Your task to perform on an android device: Open calendar and show me the second week of next month Image 0: 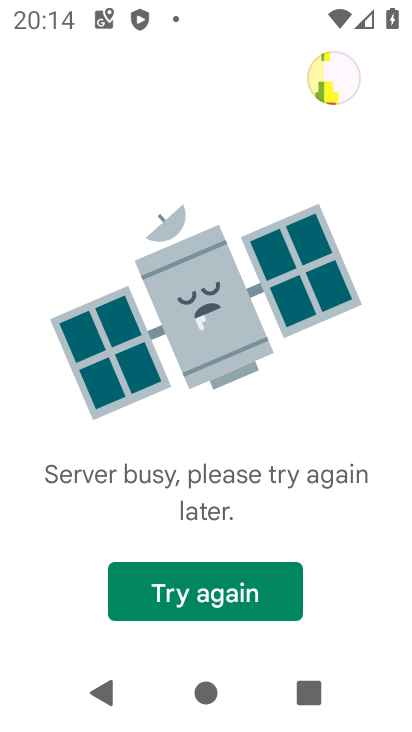
Step 0: click (264, 432)
Your task to perform on an android device: Open calendar and show me the second week of next month Image 1: 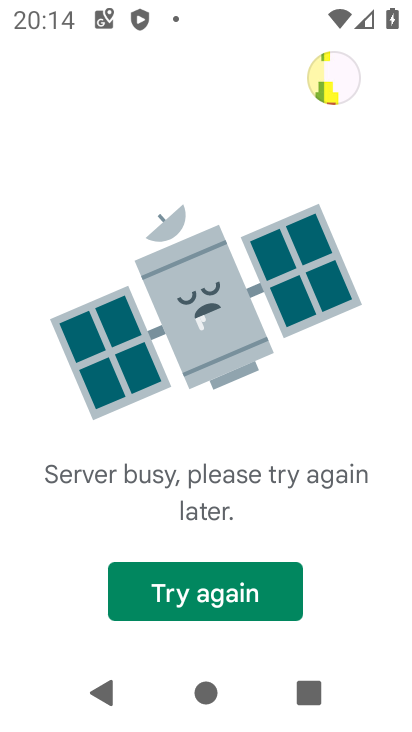
Step 1: press home button
Your task to perform on an android device: Open calendar and show me the second week of next month Image 2: 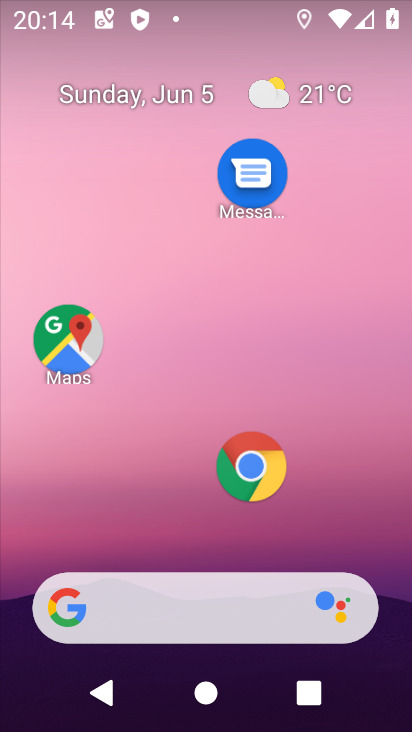
Step 2: drag from (187, 523) to (244, 52)
Your task to perform on an android device: Open calendar and show me the second week of next month Image 3: 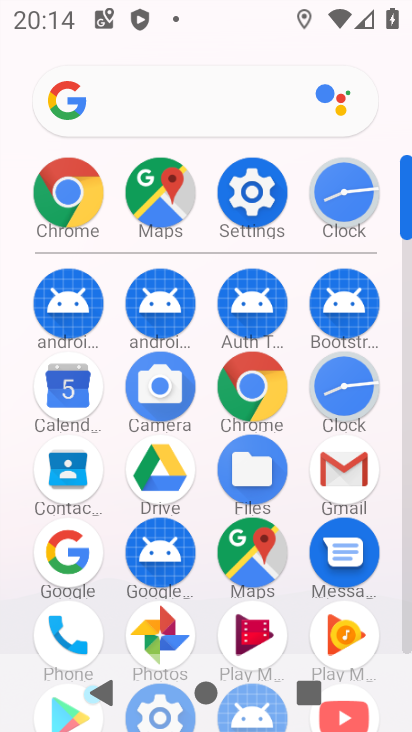
Step 3: drag from (220, 558) to (251, 110)
Your task to perform on an android device: Open calendar and show me the second week of next month Image 4: 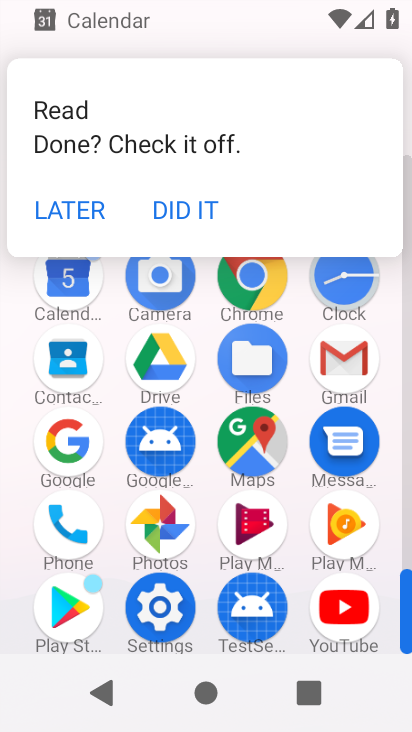
Step 4: click (64, 260)
Your task to perform on an android device: Open calendar and show me the second week of next month Image 5: 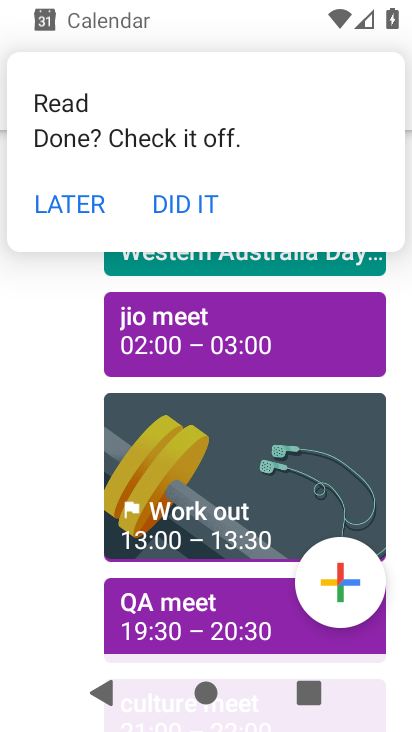
Step 5: click (77, 206)
Your task to perform on an android device: Open calendar and show me the second week of next month Image 6: 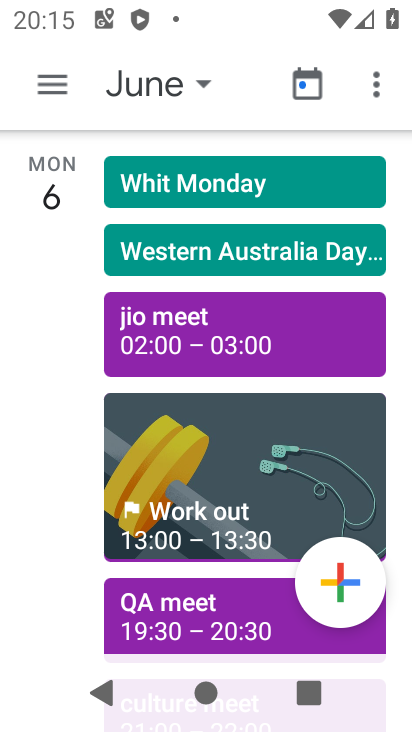
Step 6: click (161, 98)
Your task to perform on an android device: Open calendar and show me the second week of next month Image 7: 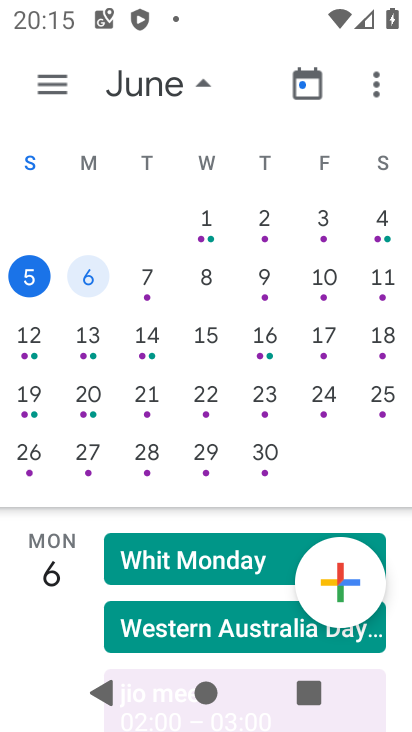
Step 7: drag from (337, 256) to (1, 317)
Your task to perform on an android device: Open calendar and show me the second week of next month Image 8: 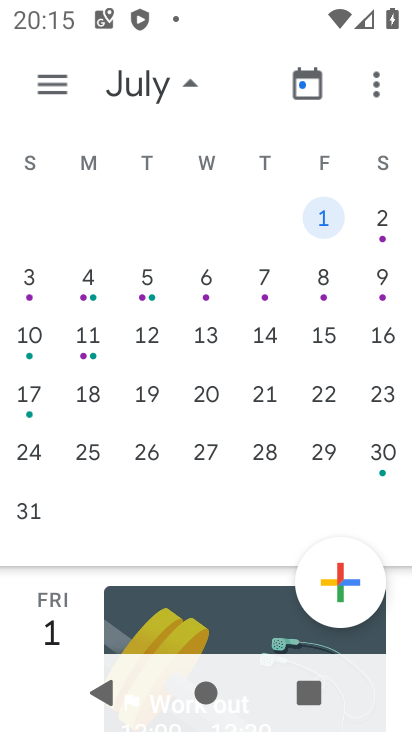
Step 8: click (325, 276)
Your task to perform on an android device: Open calendar and show me the second week of next month Image 9: 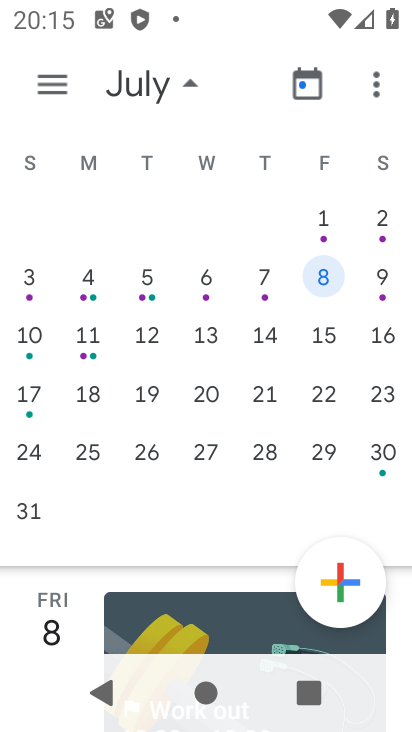
Step 9: task complete